Your task to perform on an android device: Open Chrome and go to settings Image 0: 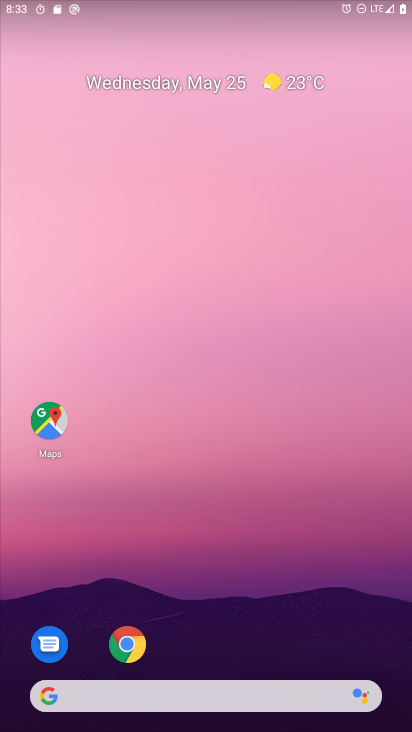
Step 0: drag from (368, 640) to (241, 21)
Your task to perform on an android device: Open Chrome and go to settings Image 1: 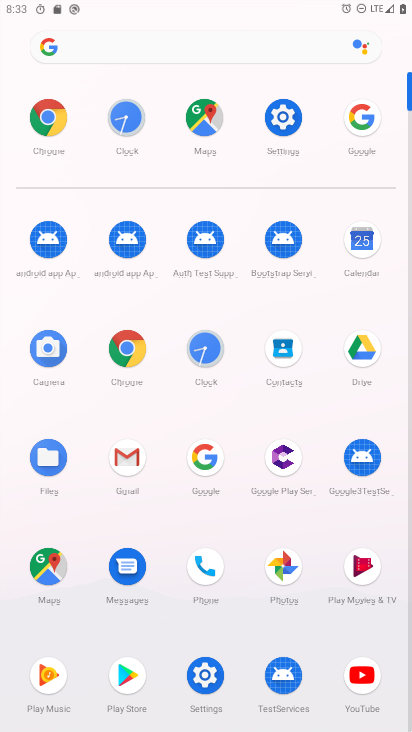
Step 1: click (100, 339)
Your task to perform on an android device: Open Chrome and go to settings Image 2: 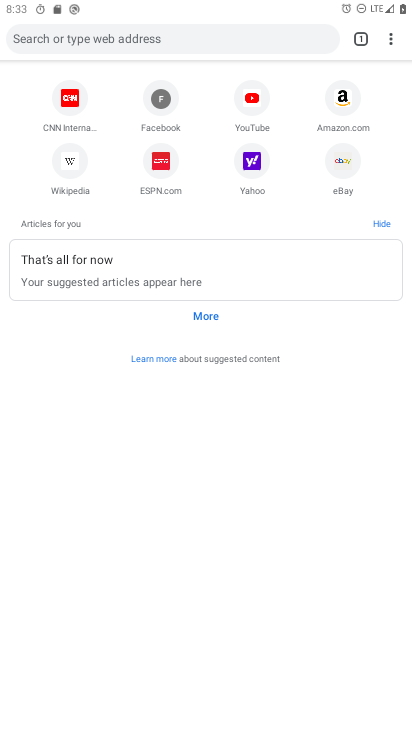
Step 2: click (395, 39)
Your task to perform on an android device: Open Chrome and go to settings Image 3: 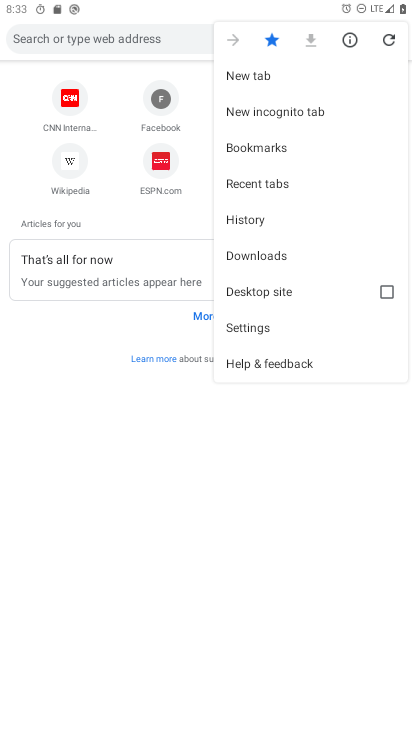
Step 3: click (266, 328)
Your task to perform on an android device: Open Chrome and go to settings Image 4: 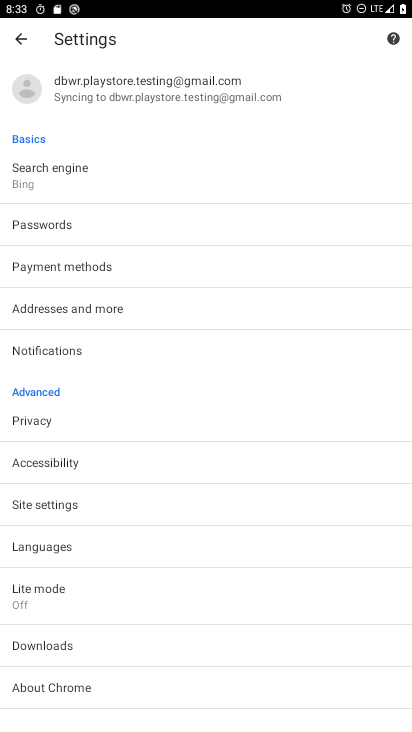
Step 4: task complete